Your task to perform on an android device: What's the weather? Image 0: 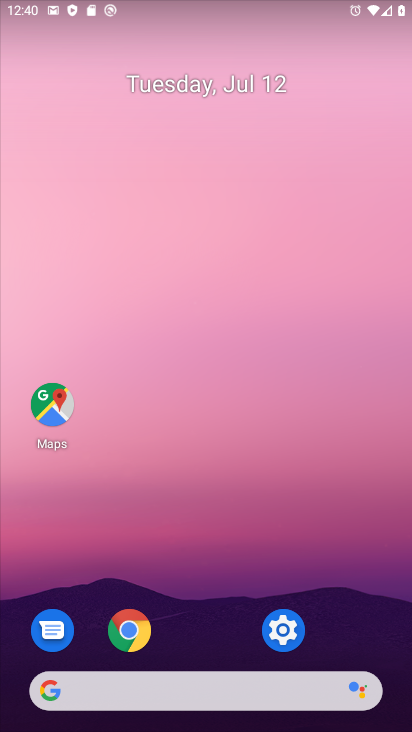
Step 0: click (184, 682)
Your task to perform on an android device: What's the weather? Image 1: 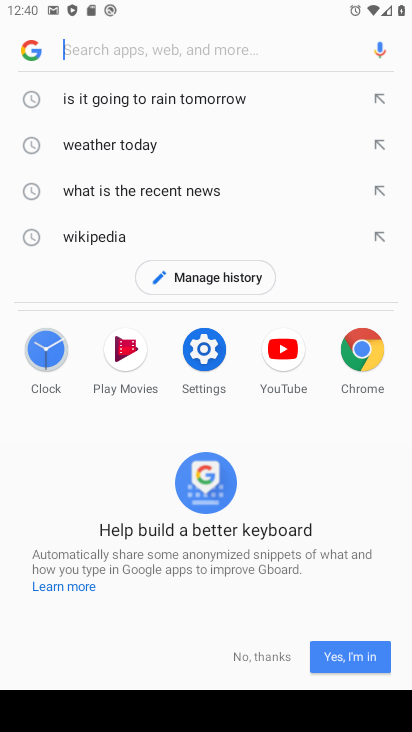
Step 1: click (267, 668)
Your task to perform on an android device: What's the weather? Image 2: 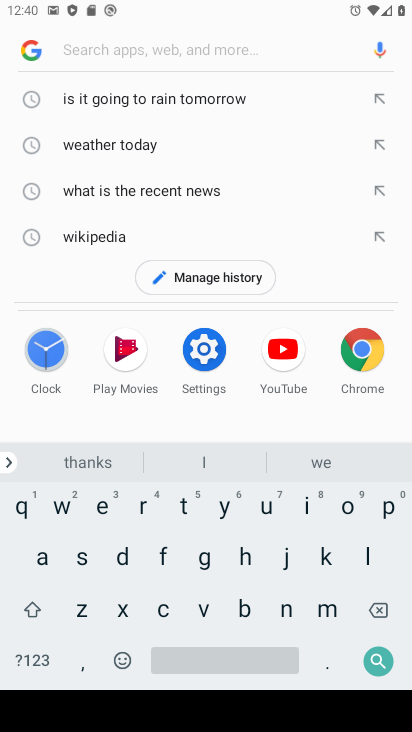
Step 2: click (63, 520)
Your task to perform on an android device: What's the weather? Image 3: 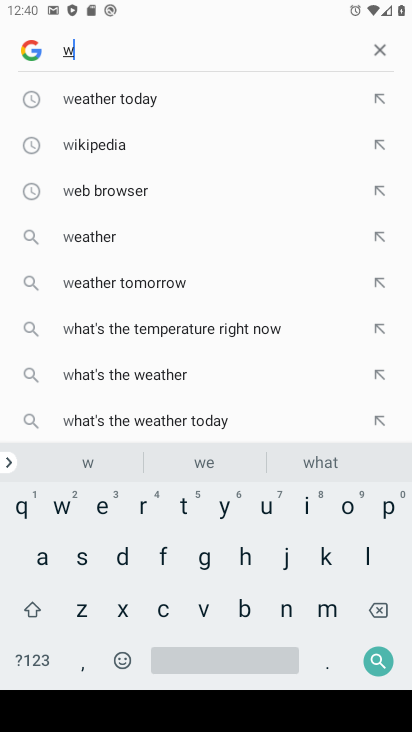
Step 3: click (122, 235)
Your task to perform on an android device: What's the weather? Image 4: 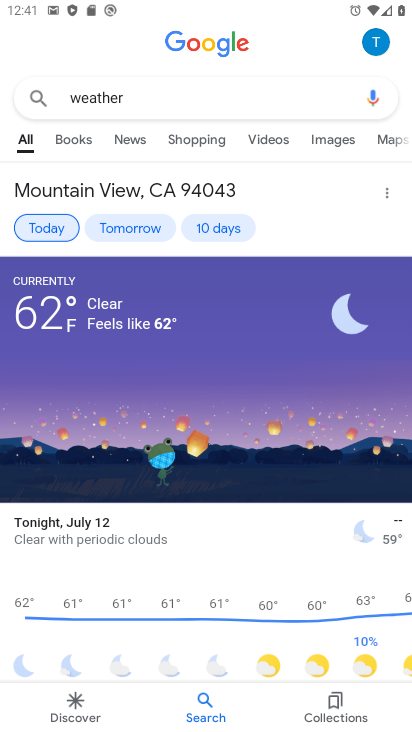
Step 4: task complete